Your task to perform on an android device: Go to accessibility settings Image 0: 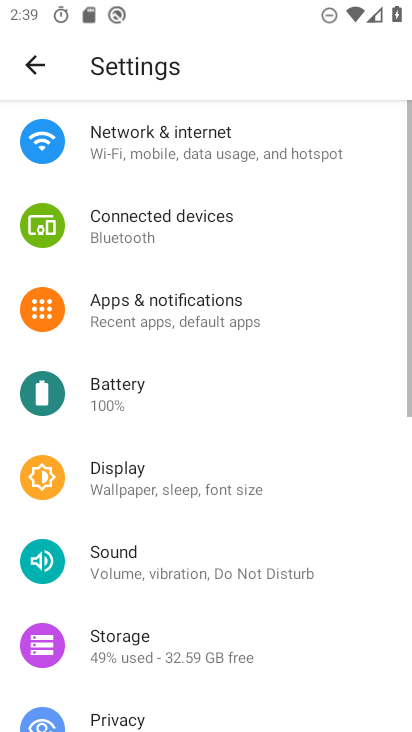
Step 0: drag from (250, 531) to (276, 87)
Your task to perform on an android device: Go to accessibility settings Image 1: 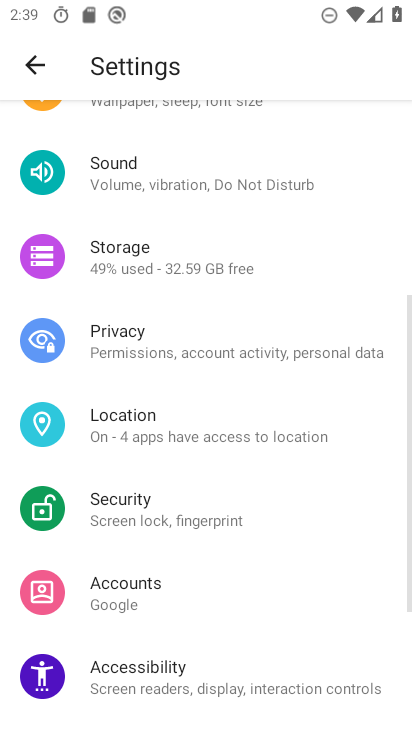
Step 1: drag from (198, 575) to (225, 244)
Your task to perform on an android device: Go to accessibility settings Image 2: 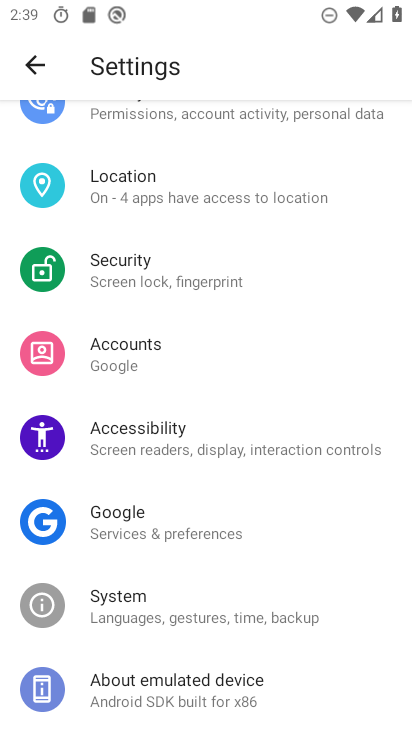
Step 2: click (148, 425)
Your task to perform on an android device: Go to accessibility settings Image 3: 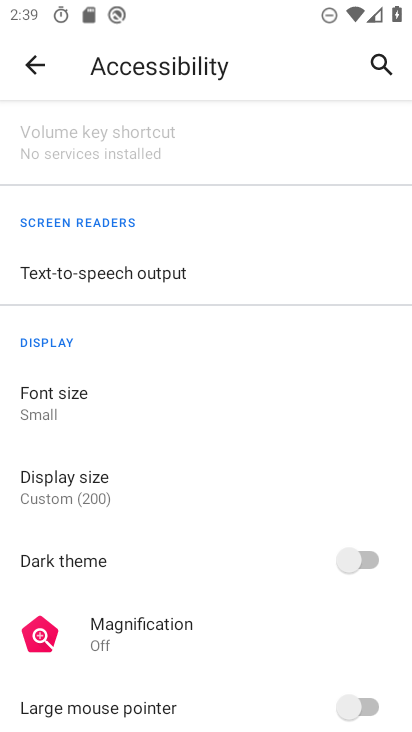
Step 3: task complete